Your task to perform on an android device: What's the weather today? Image 0: 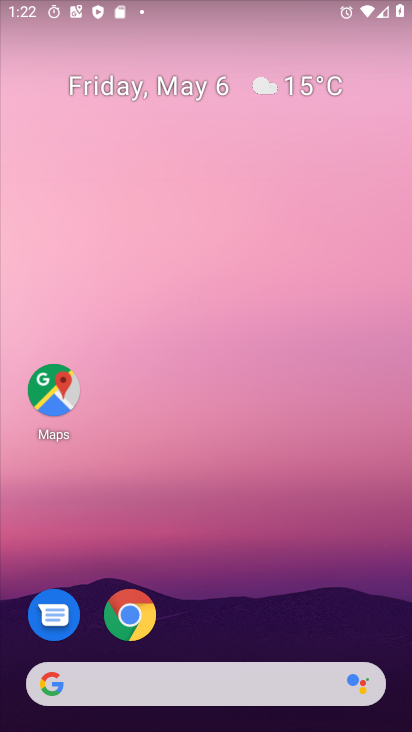
Step 0: click (301, 84)
Your task to perform on an android device: What's the weather today? Image 1: 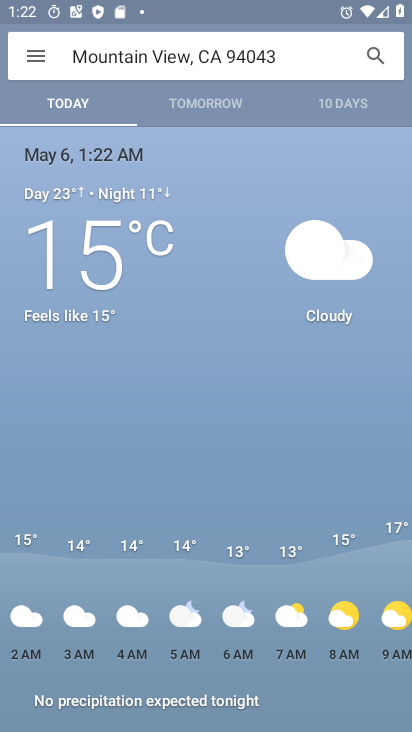
Step 1: task complete